Your task to perform on an android device: turn on priority inbox in the gmail app Image 0: 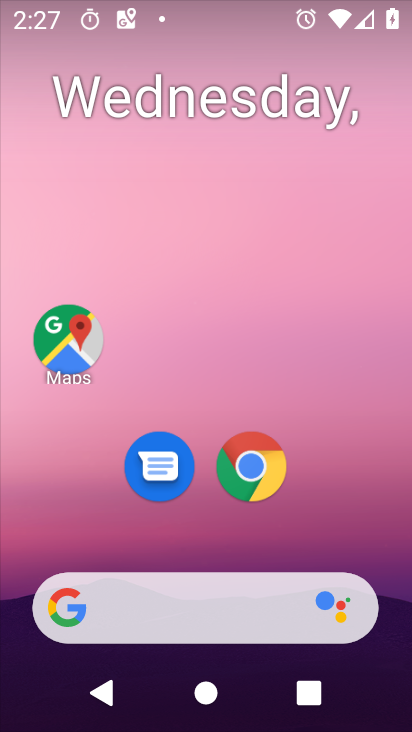
Step 0: drag from (294, 509) to (219, 4)
Your task to perform on an android device: turn on priority inbox in the gmail app Image 1: 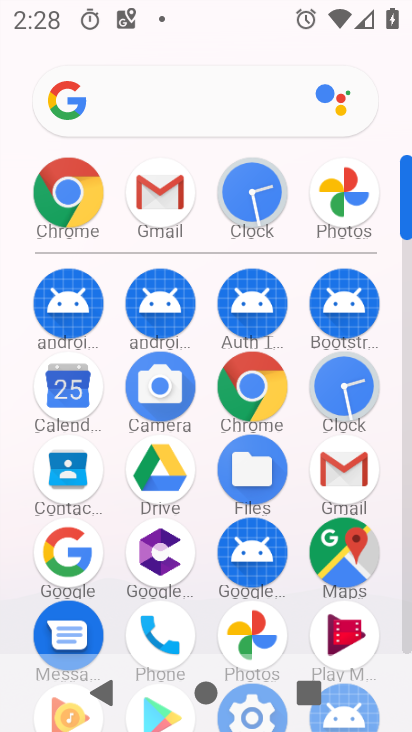
Step 1: click (148, 197)
Your task to perform on an android device: turn on priority inbox in the gmail app Image 2: 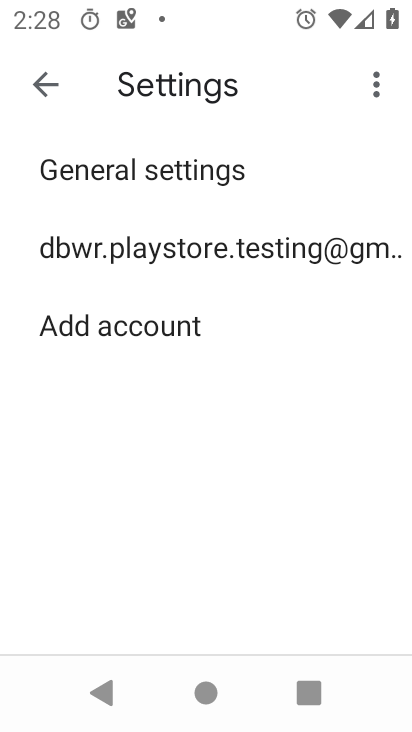
Step 2: press back button
Your task to perform on an android device: turn on priority inbox in the gmail app Image 3: 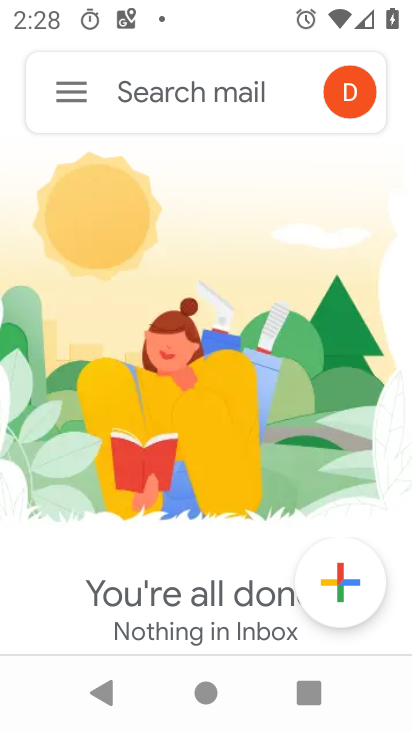
Step 3: click (68, 100)
Your task to perform on an android device: turn on priority inbox in the gmail app Image 4: 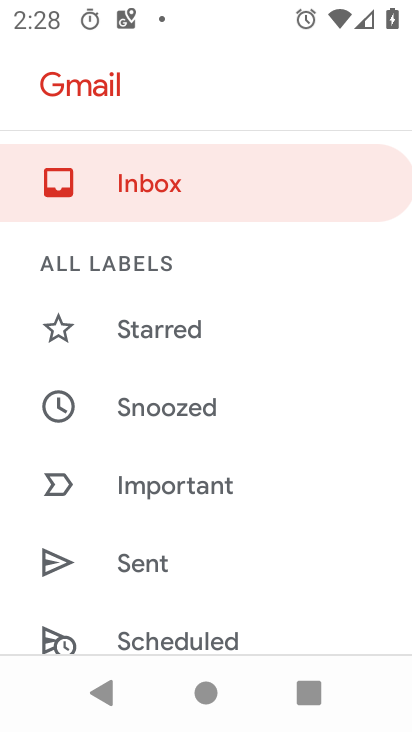
Step 4: task complete